Your task to perform on an android device: make emails show in primary in the gmail app Image 0: 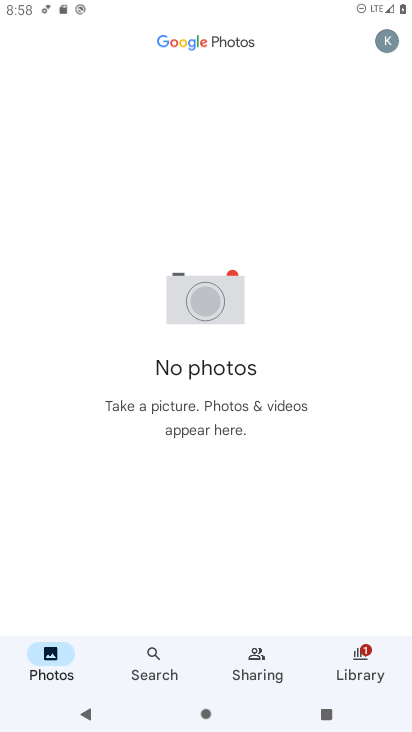
Step 0: press home button
Your task to perform on an android device: make emails show in primary in the gmail app Image 1: 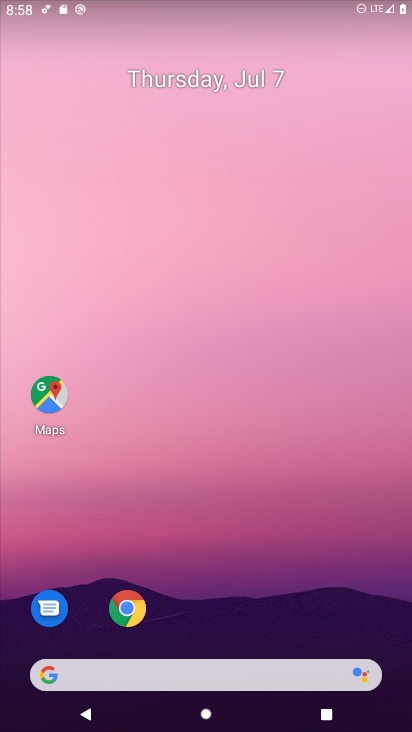
Step 1: drag from (383, 617) to (325, 93)
Your task to perform on an android device: make emails show in primary in the gmail app Image 2: 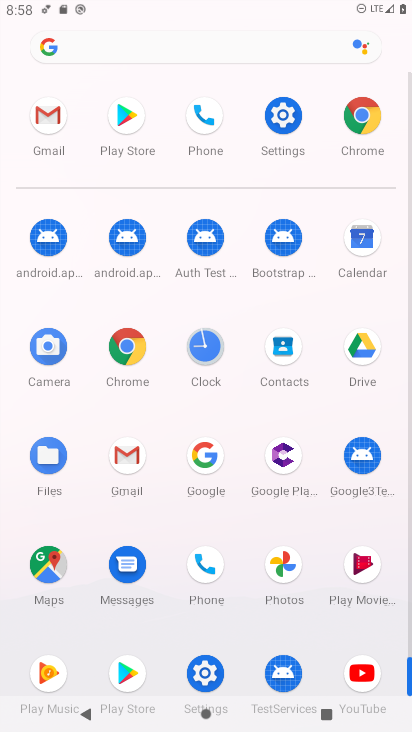
Step 2: click (126, 459)
Your task to perform on an android device: make emails show in primary in the gmail app Image 3: 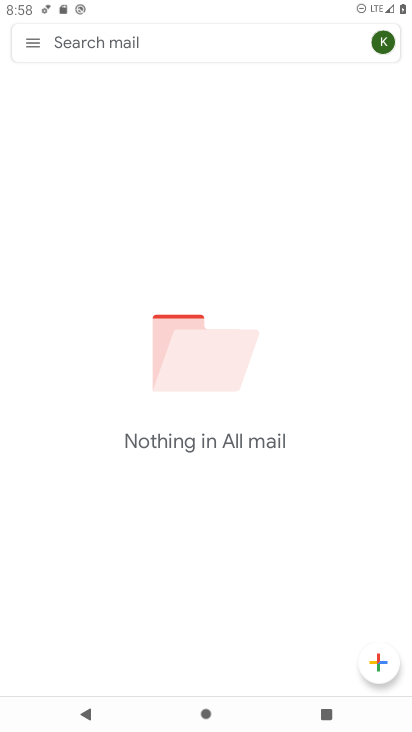
Step 3: click (29, 42)
Your task to perform on an android device: make emails show in primary in the gmail app Image 4: 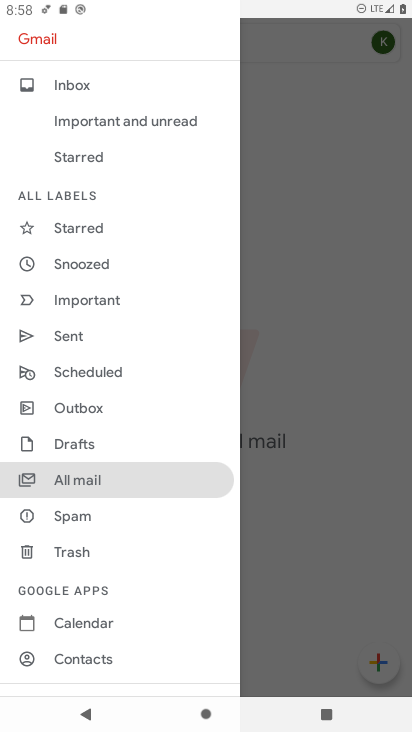
Step 4: drag from (133, 633) to (131, 437)
Your task to perform on an android device: make emails show in primary in the gmail app Image 5: 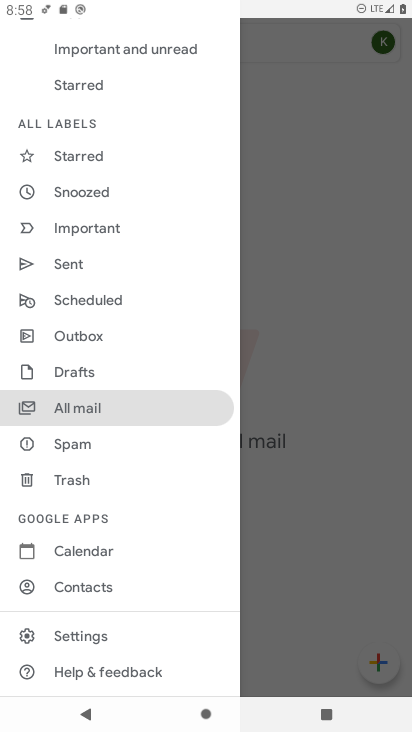
Step 5: click (79, 636)
Your task to perform on an android device: make emails show in primary in the gmail app Image 6: 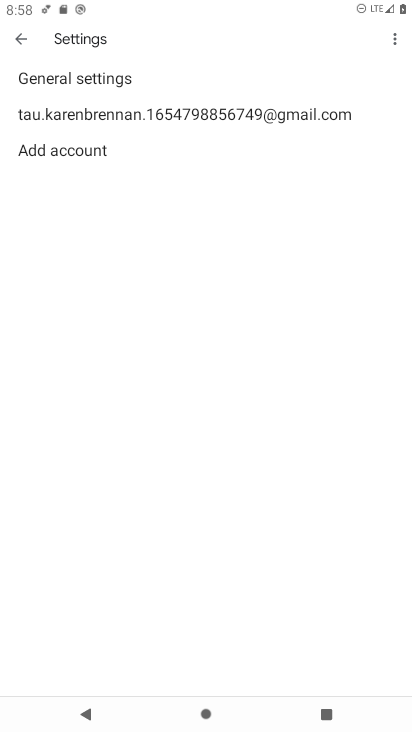
Step 6: click (110, 107)
Your task to perform on an android device: make emails show in primary in the gmail app Image 7: 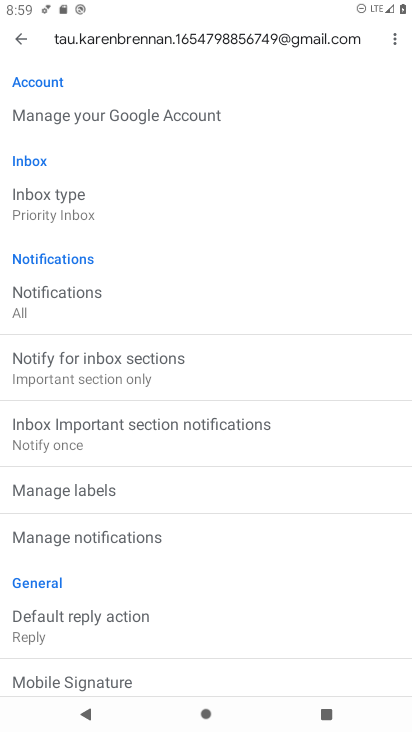
Step 7: click (52, 205)
Your task to perform on an android device: make emails show in primary in the gmail app Image 8: 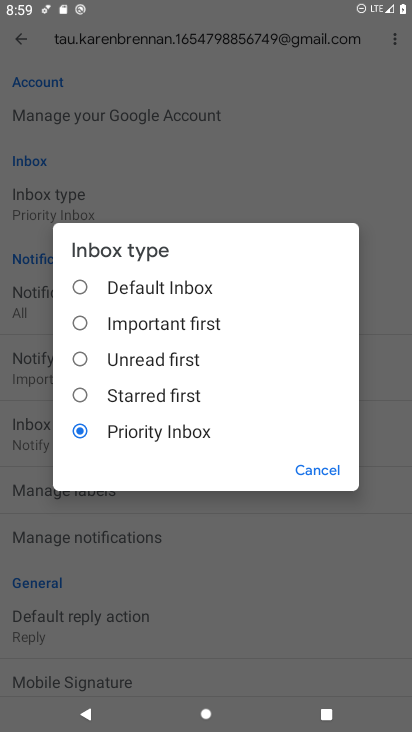
Step 8: click (81, 283)
Your task to perform on an android device: make emails show in primary in the gmail app Image 9: 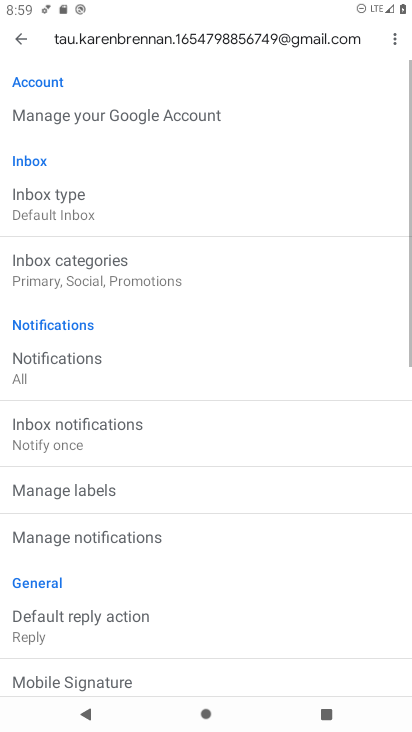
Step 9: click (55, 269)
Your task to perform on an android device: make emails show in primary in the gmail app Image 10: 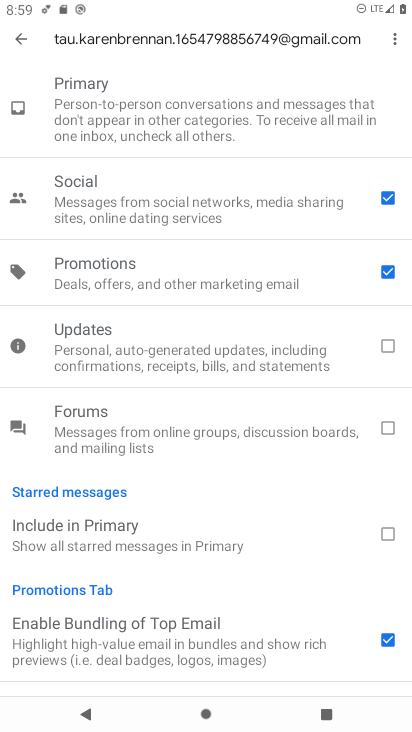
Step 10: click (387, 195)
Your task to perform on an android device: make emails show in primary in the gmail app Image 11: 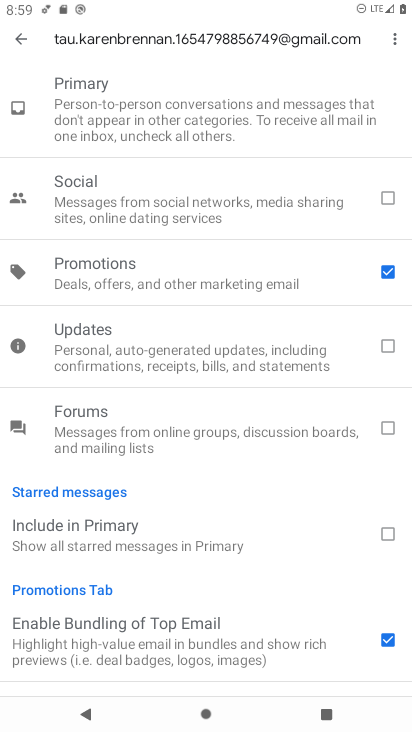
Step 11: click (388, 274)
Your task to perform on an android device: make emails show in primary in the gmail app Image 12: 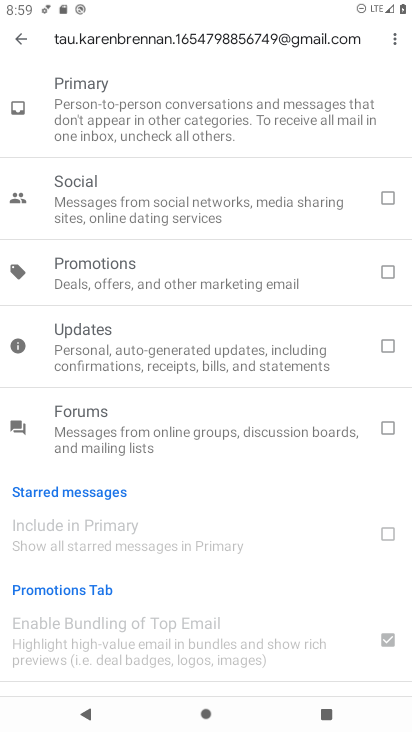
Step 12: task complete